Your task to perform on an android device: Go to Amazon Image 0: 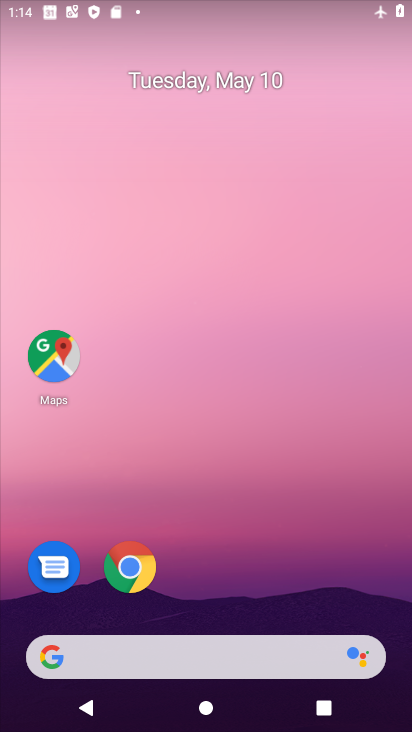
Step 0: drag from (363, 592) to (298, 64)
Your task to perform on an android device: Go to Amazon Image 1: 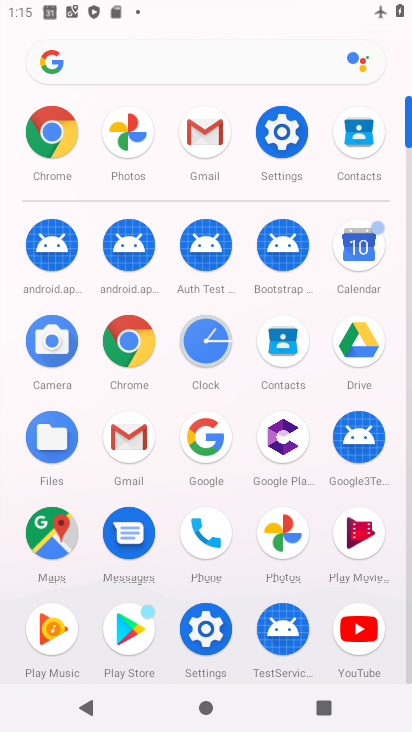
Step 1: click (142, 337)
Your task to perform on an android device: Go to Amazon Image 2: 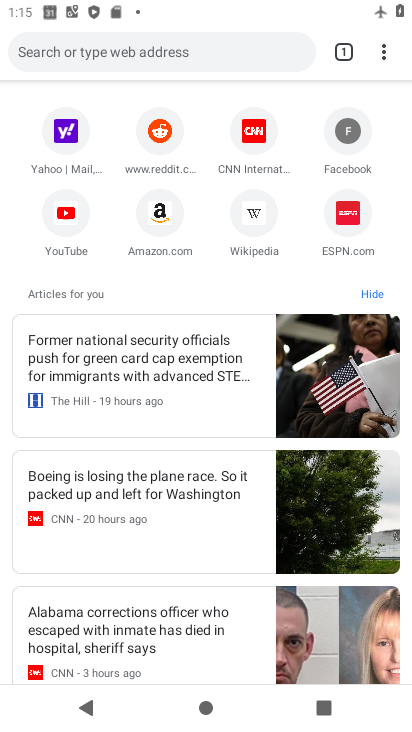
Step 2: click (146, 216)
Your task to perform on an android device: Go to Amazon Image 3: 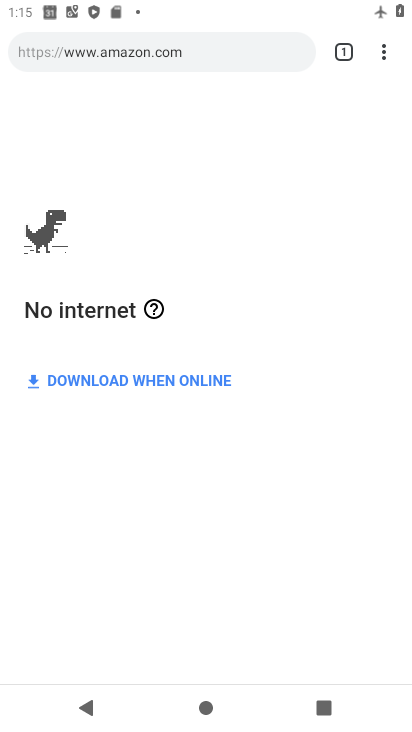
Step 3: task complete